Your task to perform on an android device: When is my next appointment? Image 0: 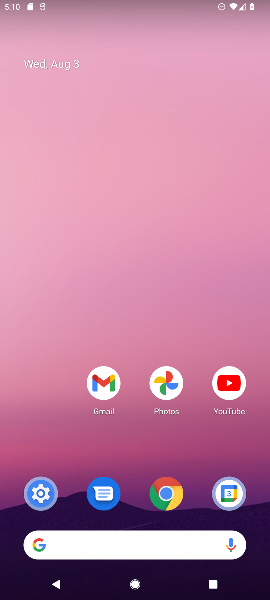
Step 0: press home button
Your task to perform on an android device: When is my next appointment? Image 1: 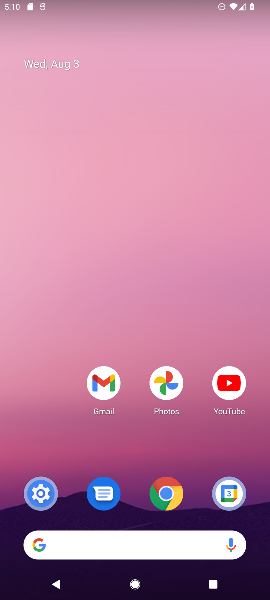
Step 1: drag from (56, 452) to (34, 116)
Your task to perform on an android device: When is my next appointment? Image 2: 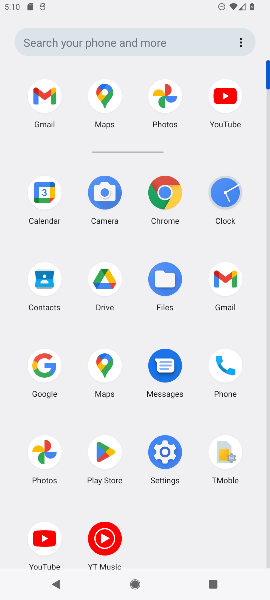
Step 2: click (41, 197)
Your task to perform on an android device: When is my next appointment? Image 3: 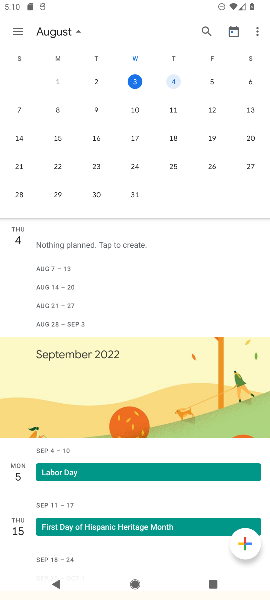
Step 3: click (48, 196)
Your task to perform on an android device: When is my next appointment? Image 4: 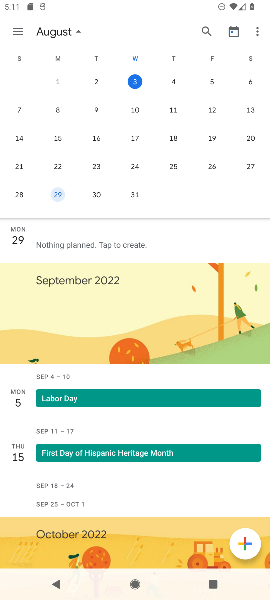
Step 4: task complete